Your task to perform on an android device: Show me recent news Image 0: 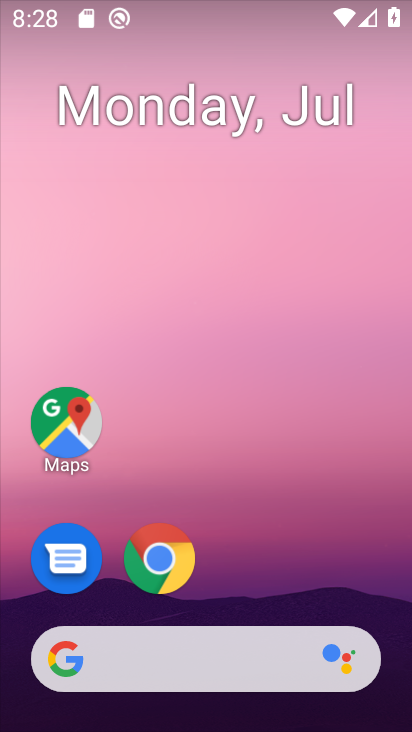
Step 0: drag from (1, 258) to (406, 443)
Your task to perform on an android device: Show me recent news Image 1: 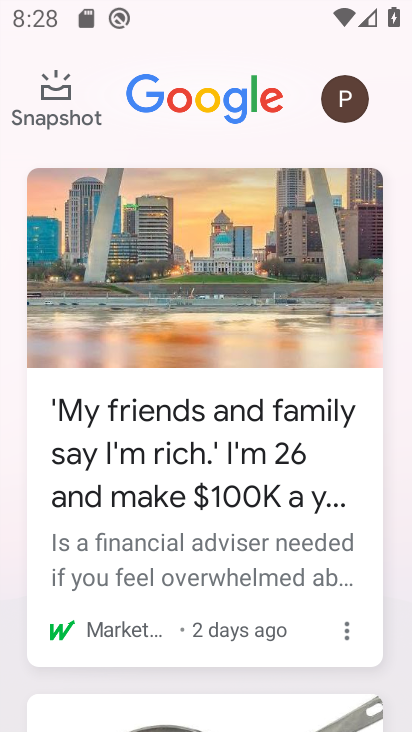
Step 1: task complete